Your task to perform on an android device: What's the weather today? Image 0: 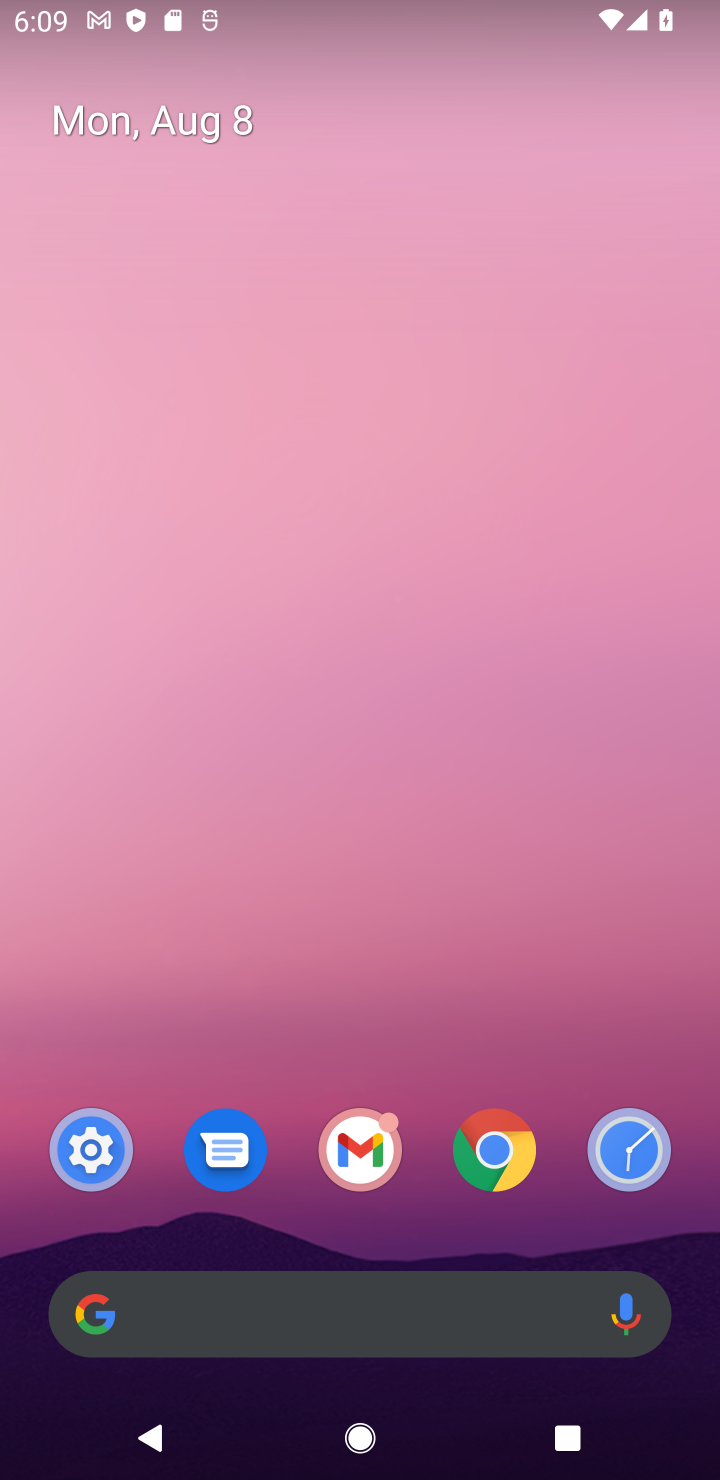
Step 0: drag from (433, 1251) to (320, 170)
Your task to perform on an android device: What's the weather today? Image 1: 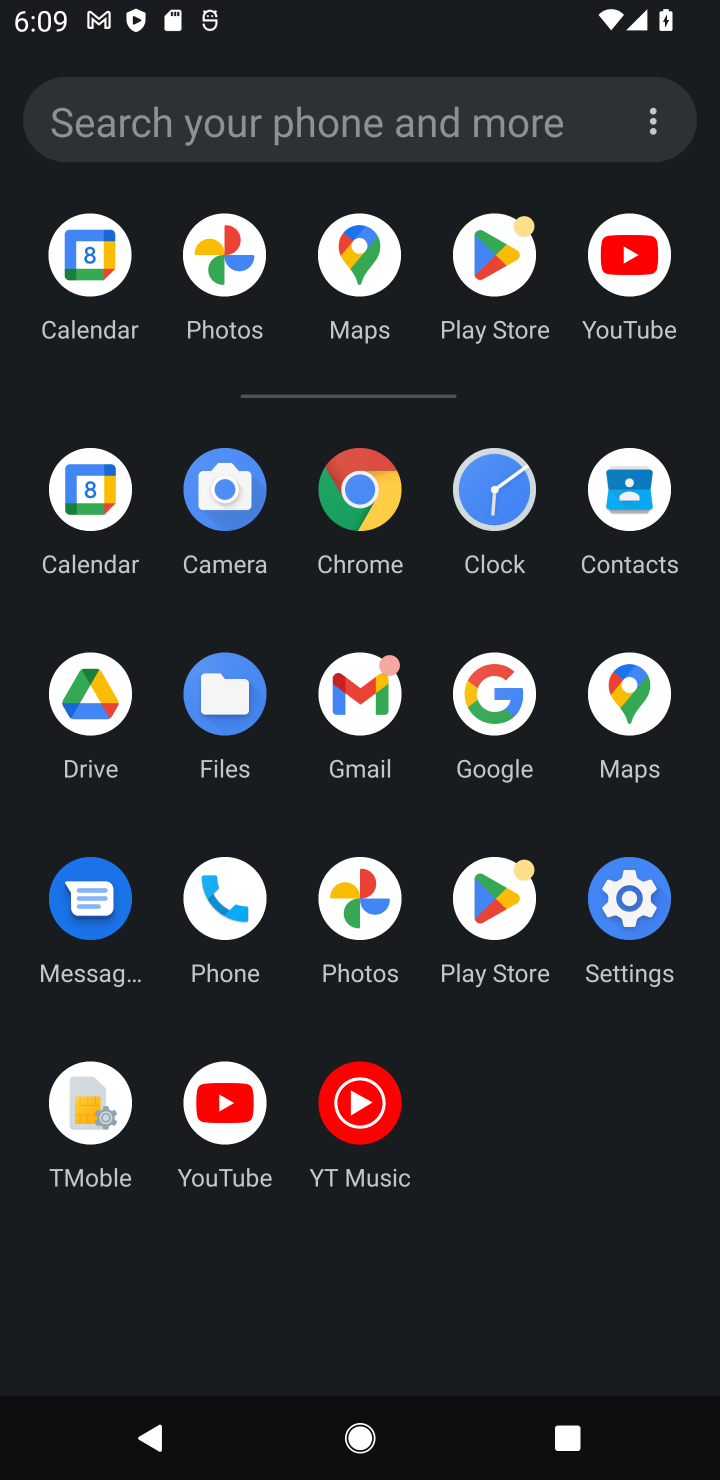
Step 1: click (337, 98)
Your task to perform on an android device: What's the weather today? Image 2: 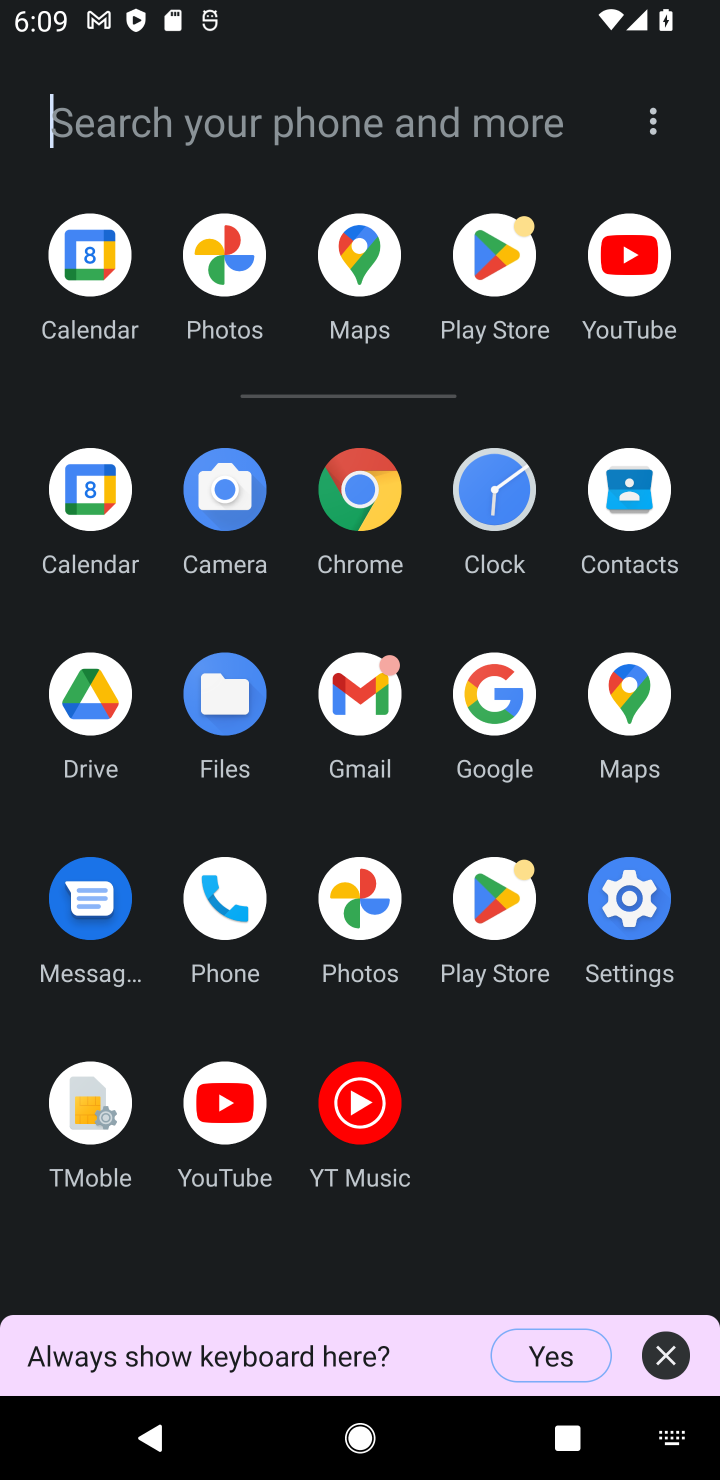
Step 2: type "weather"
Your task to perform on an android device: What's the weather today? Image 3: 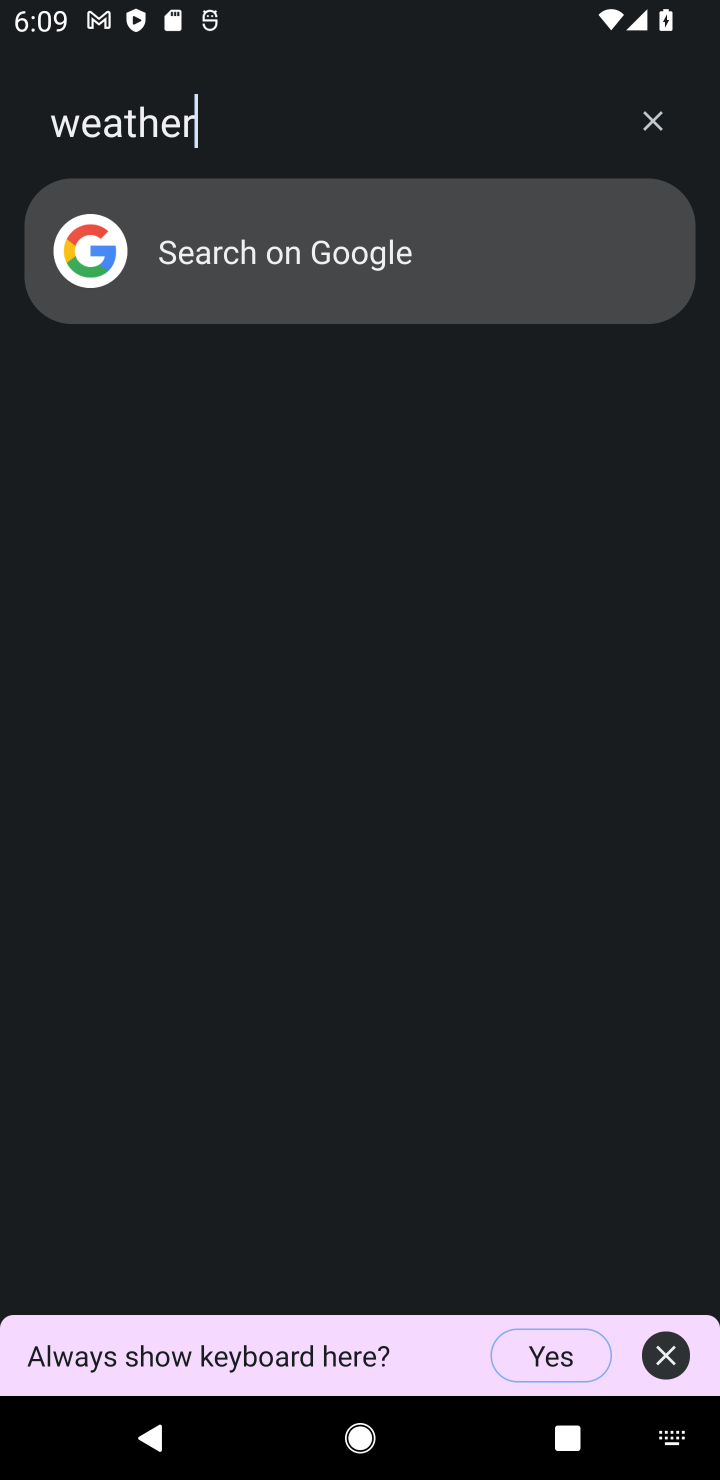
Step 3: task complete